Your task to perform on an android device: Go to notification settings Image 0: 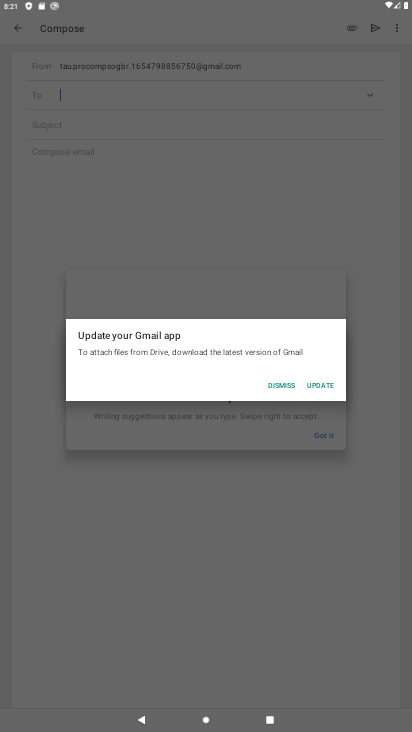
Step 0: press home button
Your task to perform on an android device: Go to notification settings Image 1: 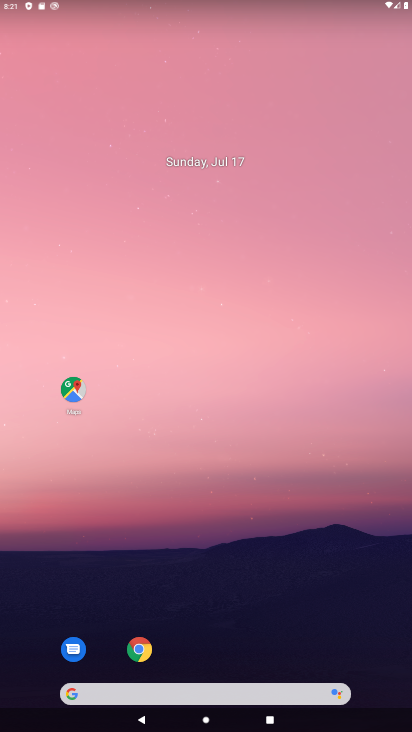
Step 1: drag from (198, 649) to (179, 237)
Your task to perform on an android device: Go to notification settings Image 2: 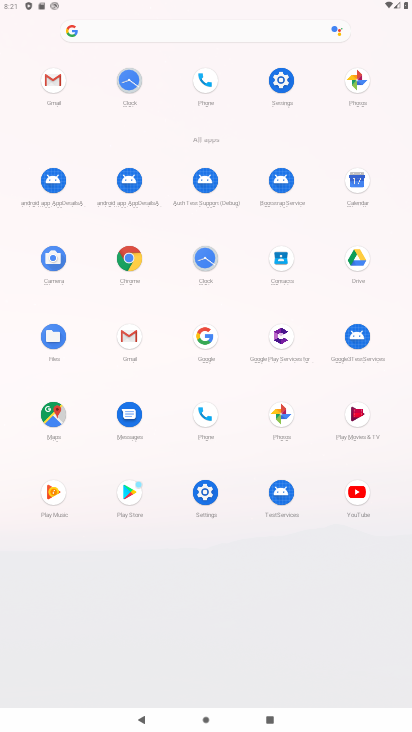
Step 2: click (274, 83)
Your task to perform on an android device: Go to notification settings Image 3: 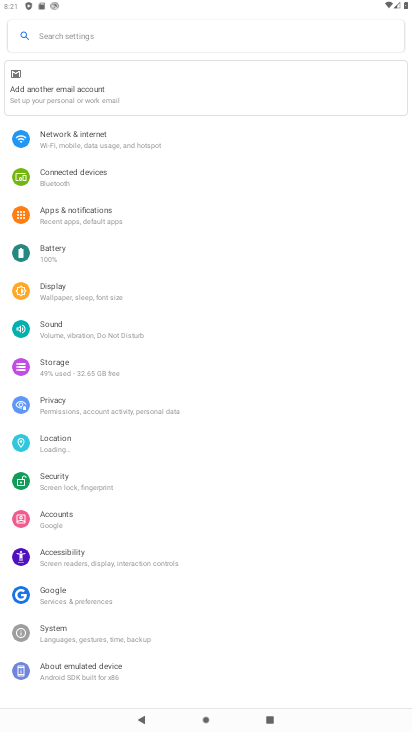
Step 3: click (76, 220)
Your task to perform on an android device: Go to notification settings Image 4: 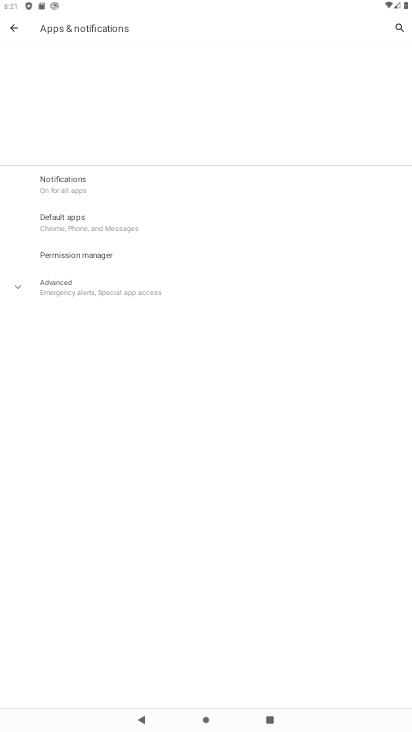
Step 4: click (62, 181)
Your task to perform on an android device: Go to notification settings Image 5: 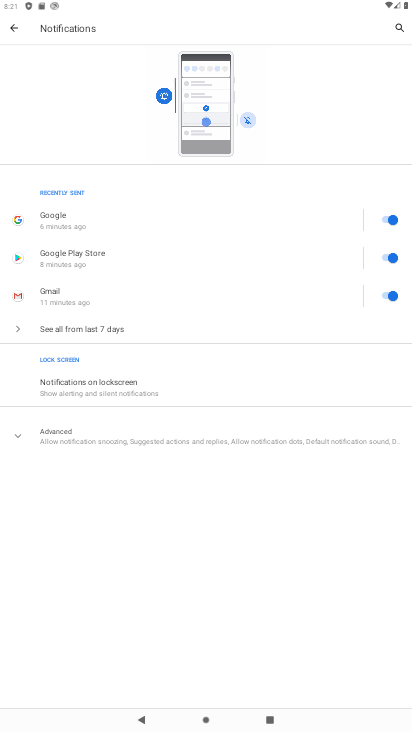
Step 5: task complete